Your task to perform on an android device: Open my contact list Image 0: 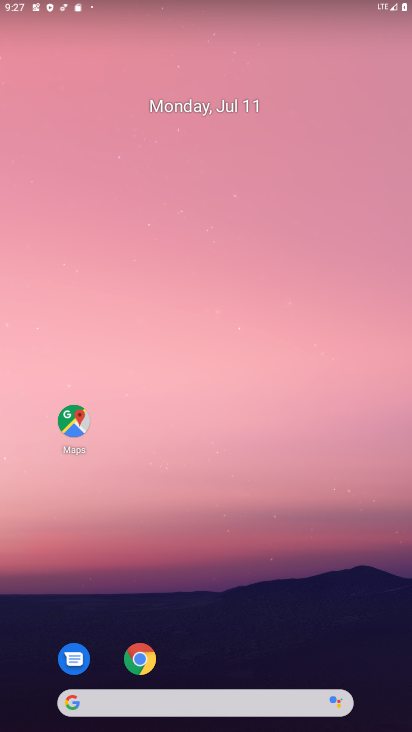
Step 0: drag from (220, 693) to (208, 159)
Your task to perform on an android device: Open my contact list Image 1: 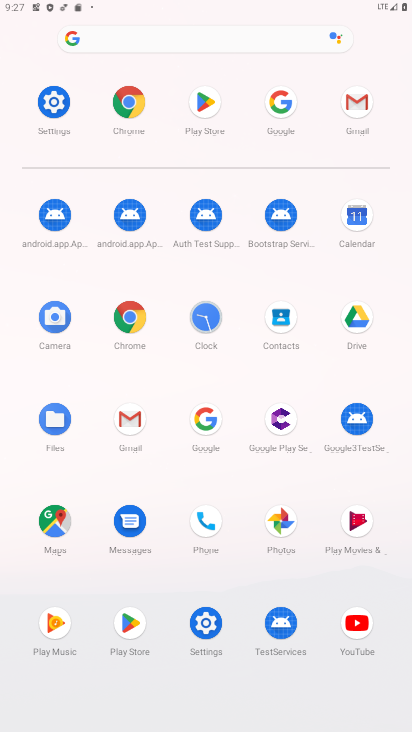
Step 1: click (280, 320)
Your task to perform on an android device: Open my contact list Image 2: 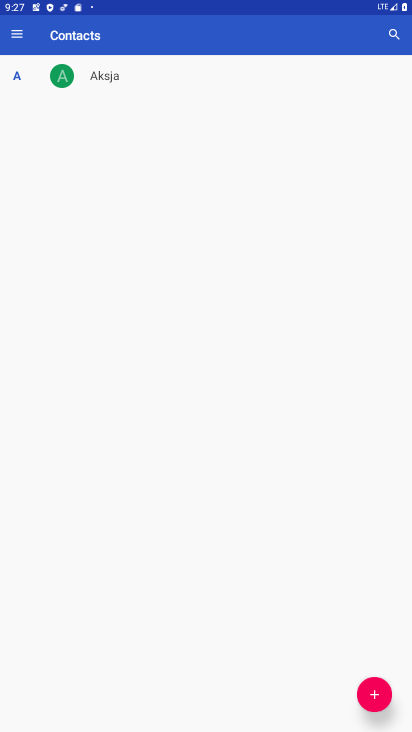
Step 2: task complete